Your task to perform on an android device: Open the map Image 0: 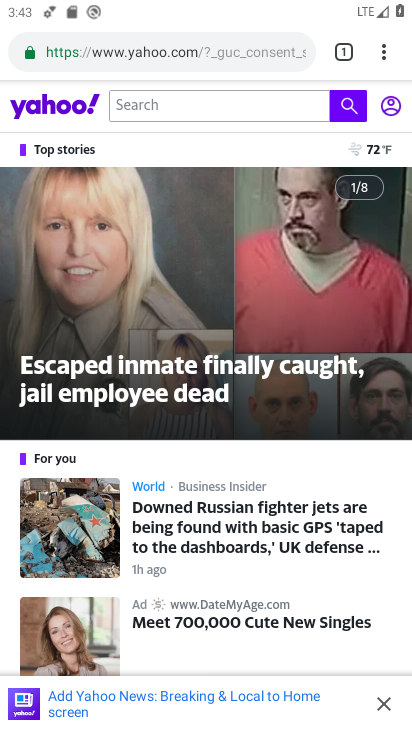
Step 0: press home button
Your task to perform on an android device: Open the map Image 1: 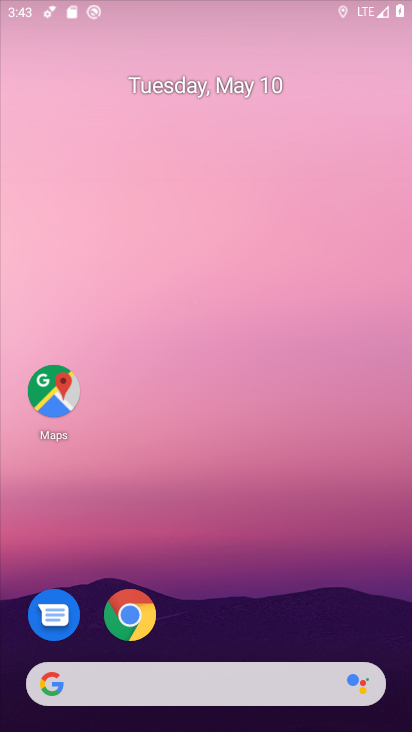
Step 1: drag from (304, 687) to (332, 128)
Your task to perform on an android device: Open the map Image 2: 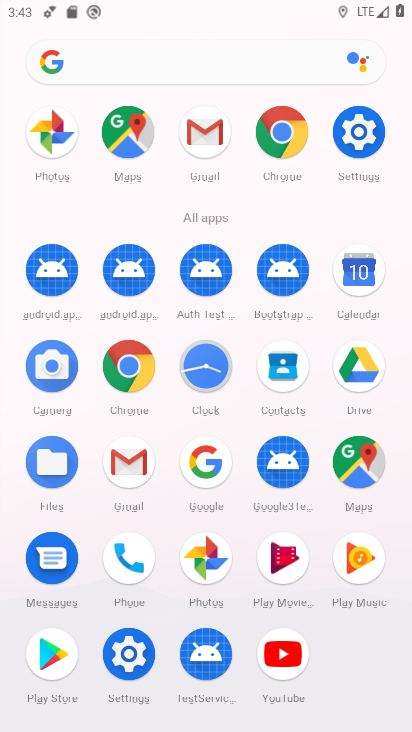
Step 2: click (343, 465)
Your task to perform on an android device: Open the map Image 3: 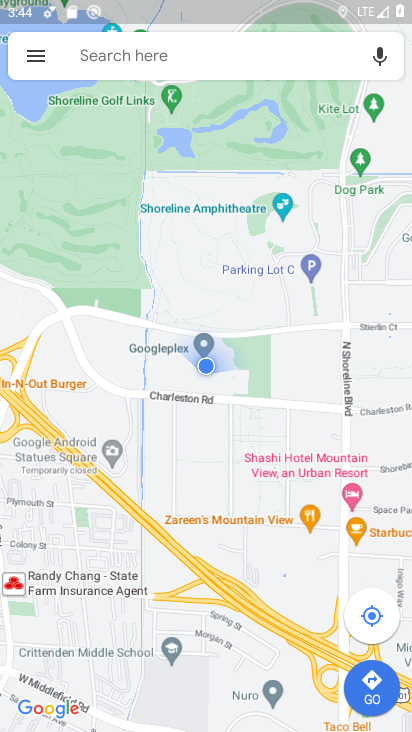
Step 3: task complete